Your task to perform on an android device: turn on airplane mode Image 0: 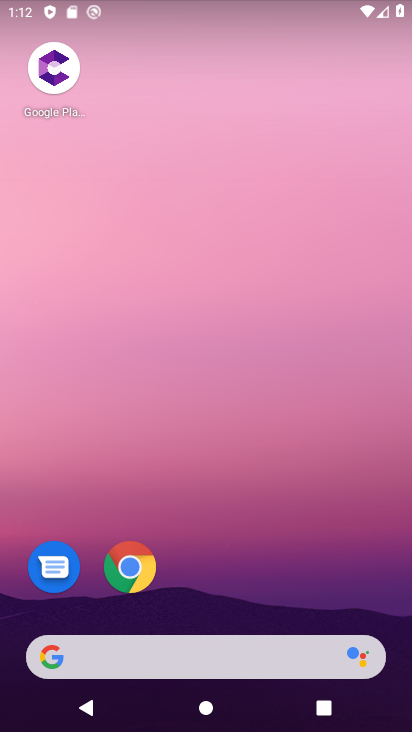
Step 0: drag from (262, 599) to (219, 227)
Your task to perform on an android device: turn on airplane mode Image 1: 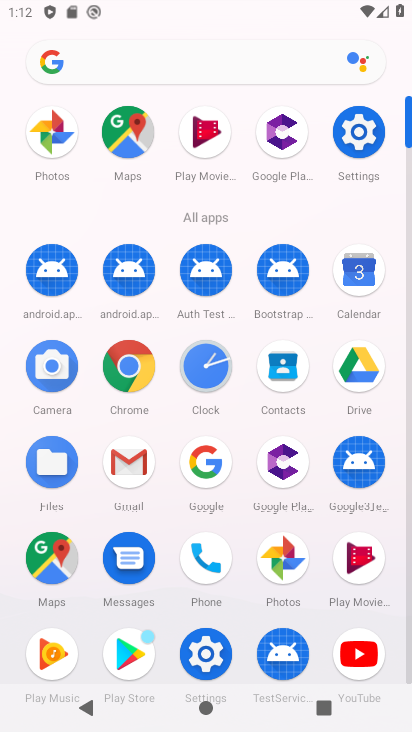
Step 1: click (374, 138)
Your task to perform on an android device: turn on airplane mode Image 2: 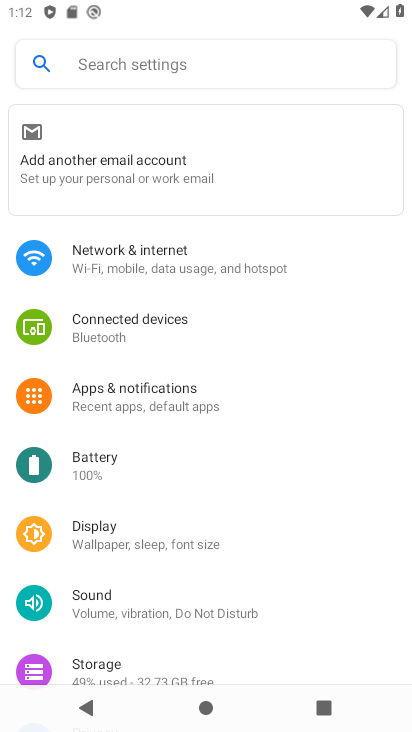
Step 2: click (276, 249)
Your task to perform on an android device: turn on airplane mode Image 3: 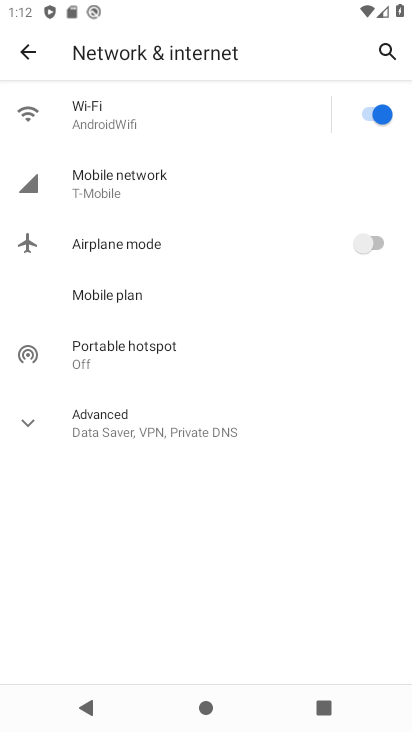
Step 3: click (375, 237)
Your task to perform on an android device: turn on airplane mode Image 4: 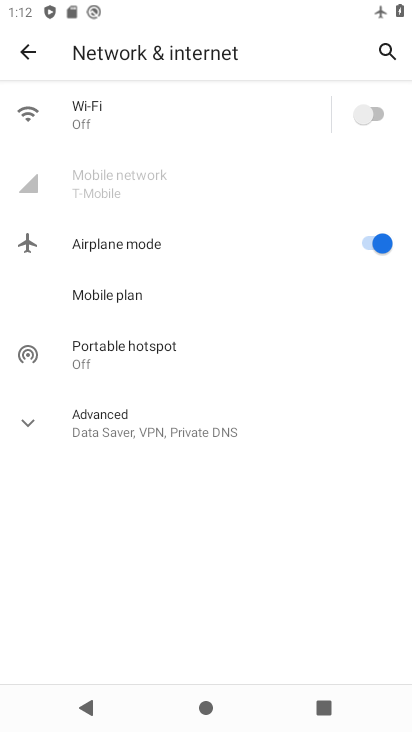
Step 4: task complete